Your task to perform on an android device: Open the phone app and click the voicemail tab. Image 0: 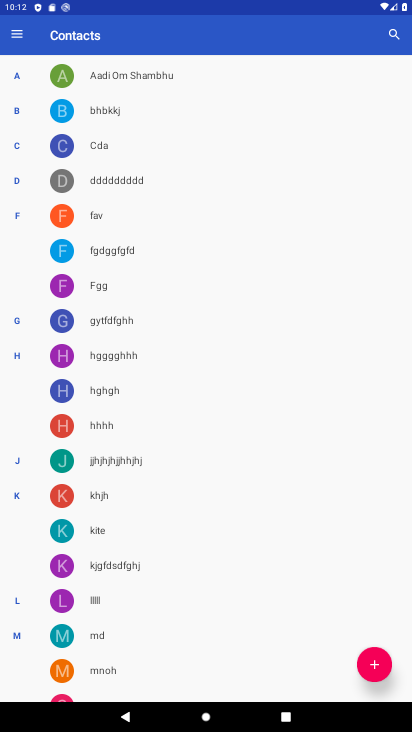
Step 0: press home button
Your task to perform on an android device: Open the phone app and click the voicemail tab. Image 1: 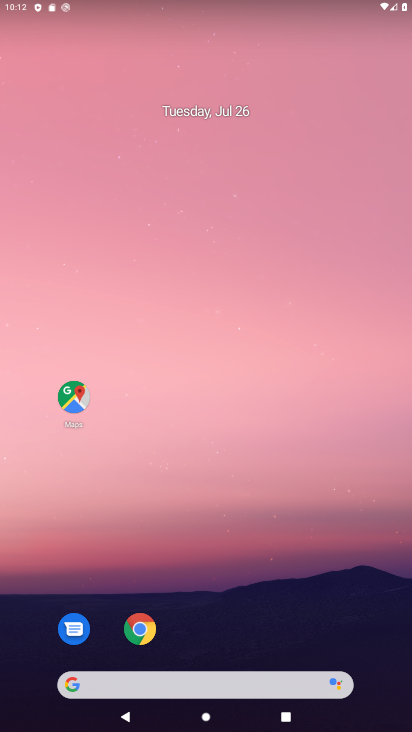
Step 1: drag from (324, 613) to (88, 163)
Your task to perform on an android device: Open the phone app and click the voicemail tab. Image 2: 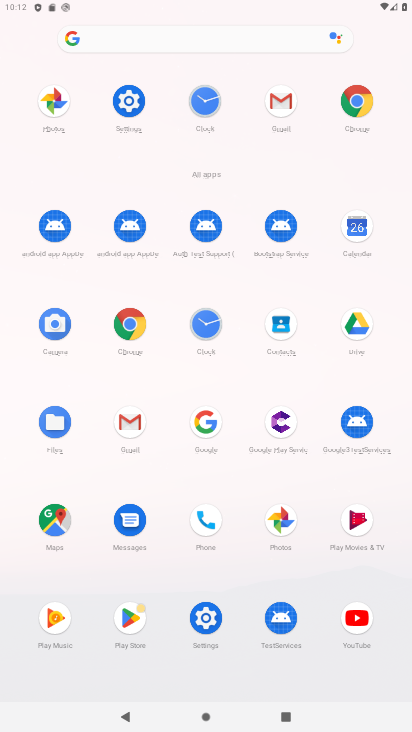
Step 2: click (215, 509)
Your task to perform on an android device: Open the phone app and click the voicemail tab. Image 3: 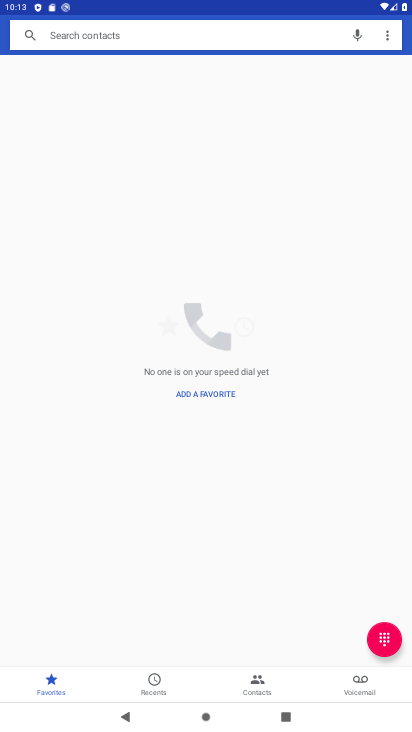
Step 3: click (348, 682)
Your task to perform on an android device: Open the phone app and click the voicemail tab. Image 4: 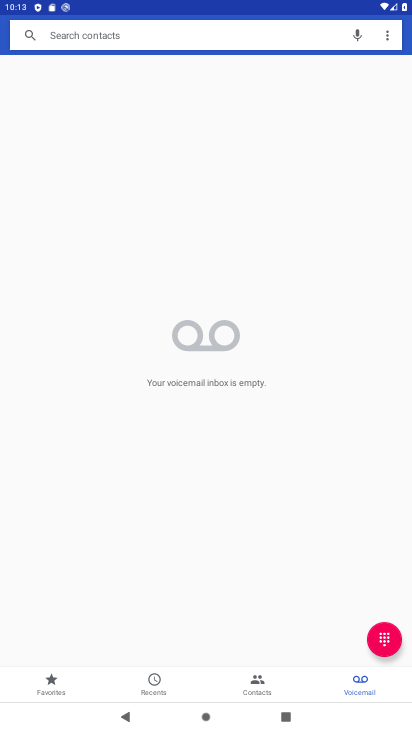
Step 4: task complete